Your task to perform on an android device: When is my next appointment? Image 0: 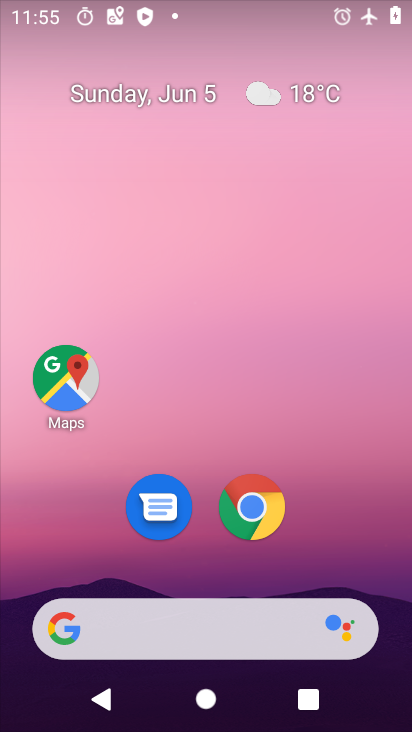
Step 0: drag from (233, 723) to (215, 128)
Your task to perform on an android device: When is my next appointment? Image 1: 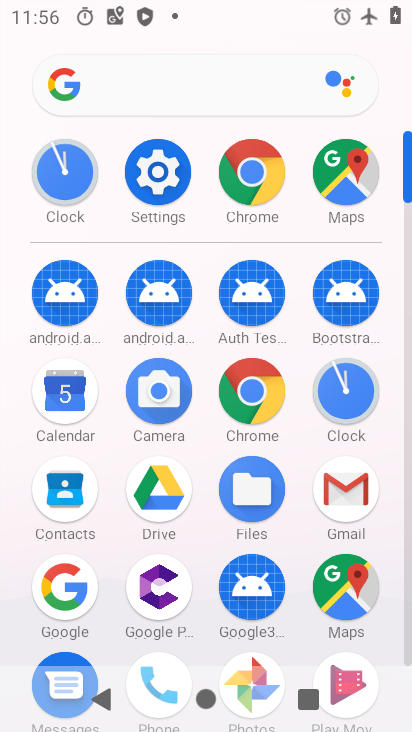
Step 1: click (69, 397)
Your task to perform on an android device: When is my next appointment? Image 2: 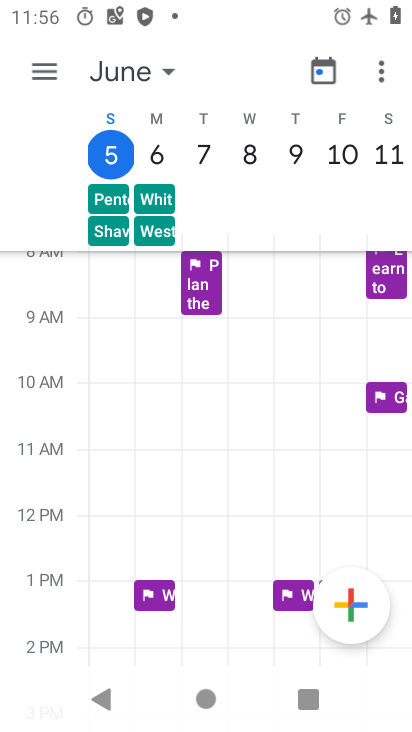
Step 2: click (155, 145)
Your task to perform on an android device: When is my next appointment? Image 3: 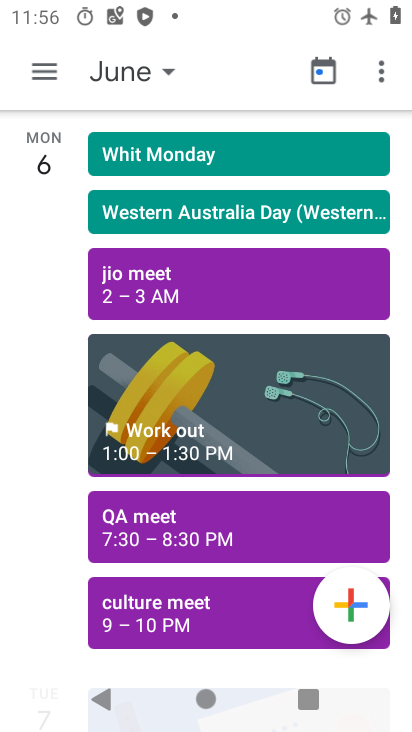
Step 3: task complete